Your task to perform on an android device: change the clock style Image 0: 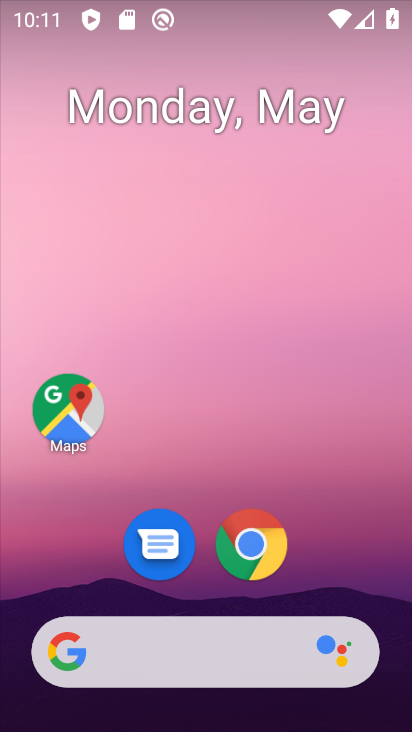
Step 0: drag from (288, 659) to (306, 65)
Your task to perform on an android device: change the clock style Image 1: 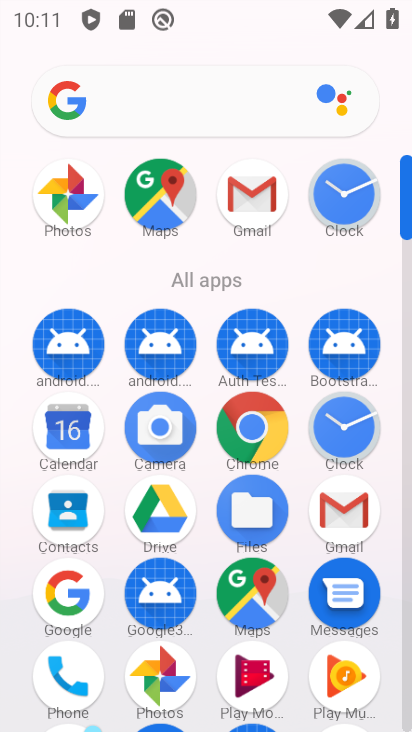
Step 1: click (360, 431)
Your task to perform on an android device: change the clock style Image 2: 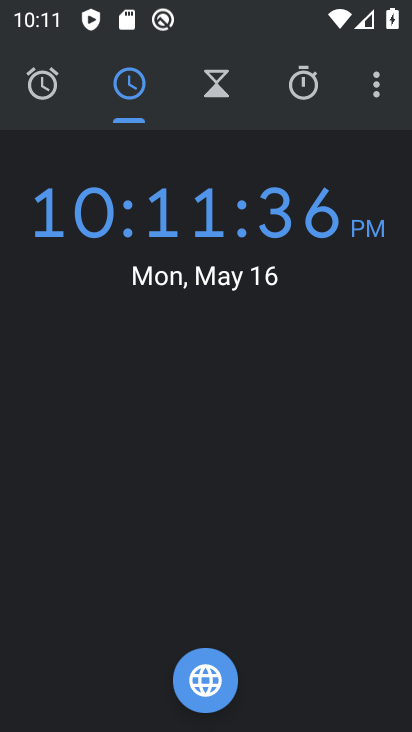
Step 2: click (376, 80)
Your task to perform on an android device: change the clock style Image 3: 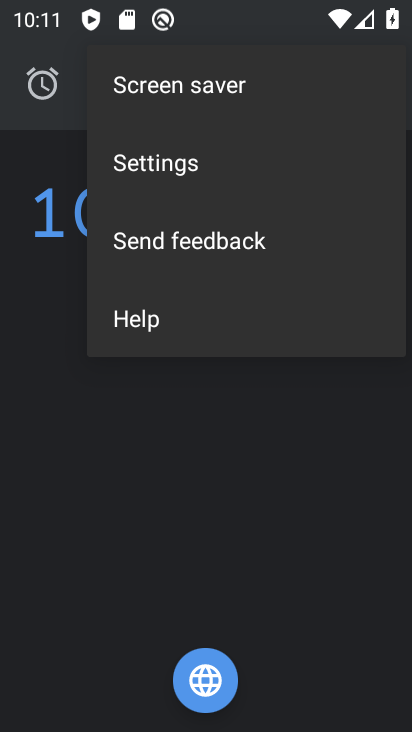
Step 3: click (255, 171)
Your task to perform on an android device: change the clock style Image 4: 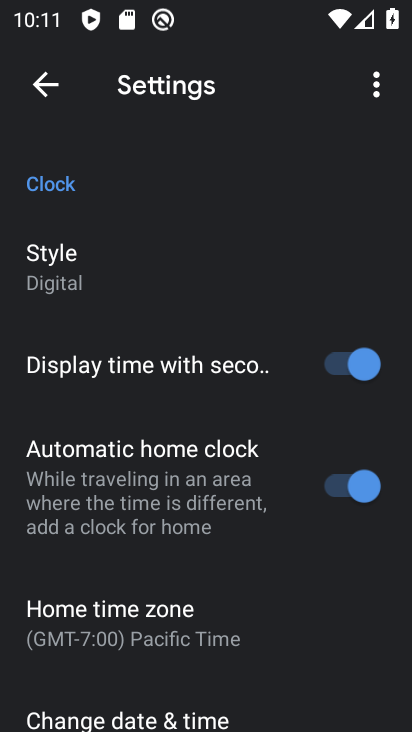
Step 4: click (142, 273)
Your task to perform on an android device: change the clock style Image 5: 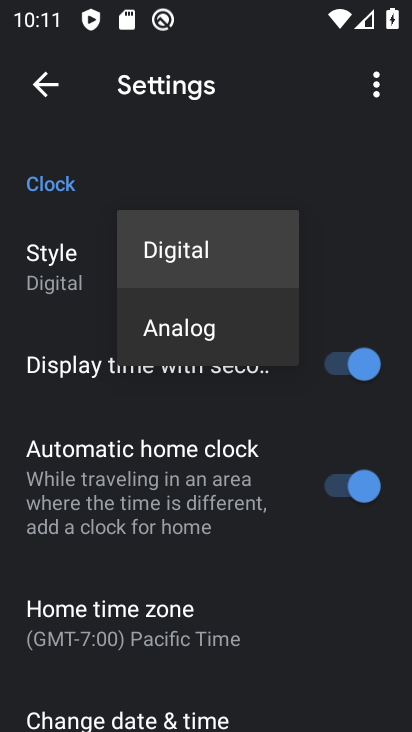
Step 5: click (157, 333)
Your task to perform on an android device: change the clock style Image 6: 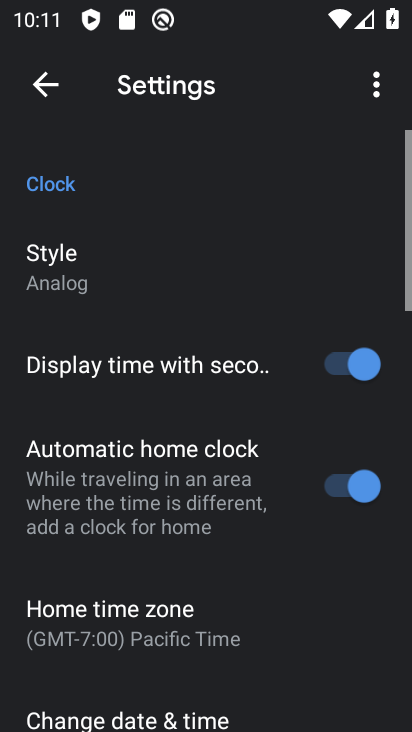
Step 6: task complete